Your task to perform on an android device: Open Chrome and go to settings Image 0: 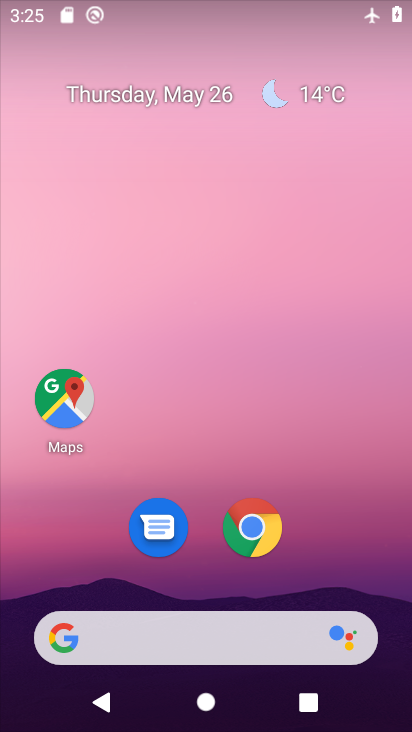
Step 0: click (257, 536)
Your task to perform on an android device: Open Chrome and go to settings Image 1: 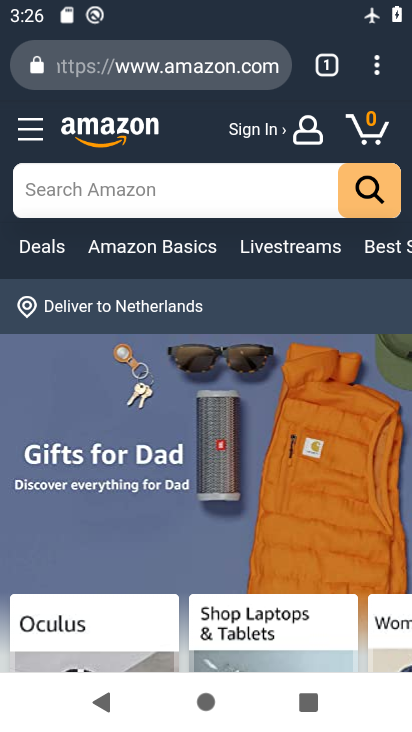
Step 1: click (375, 59)
Your task to perform on an android device: Open Chrome and go to settings Image 2: 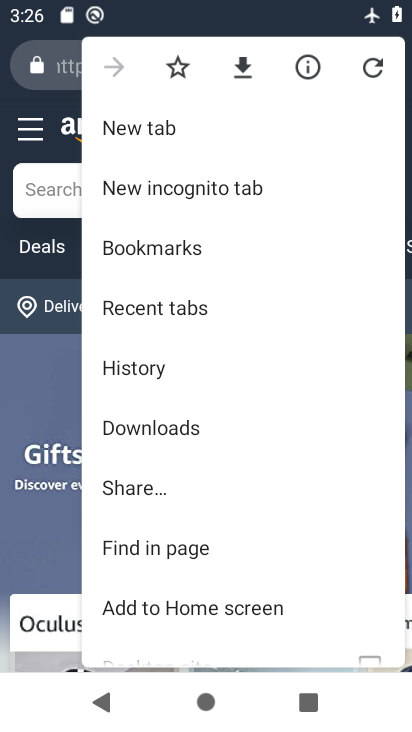
Step 2: drag from (200, 630) to (166, 243)
Your task to perform on an android device: Open Chrome and go to settings Image 3: 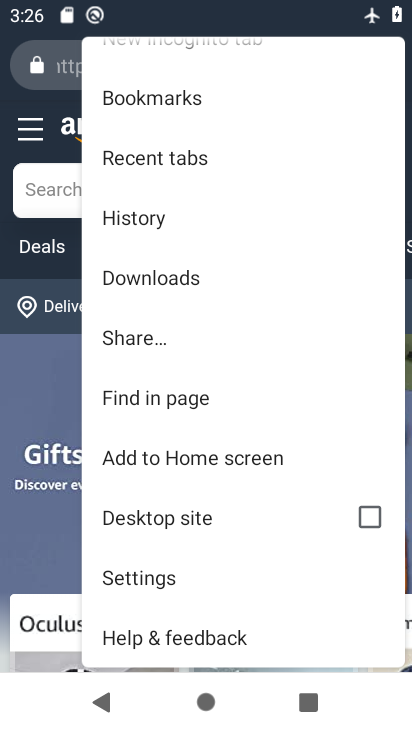
Step 3: click (171, 570)
Your task to perform on an android device: Open Chrome and go to settings Image 4: 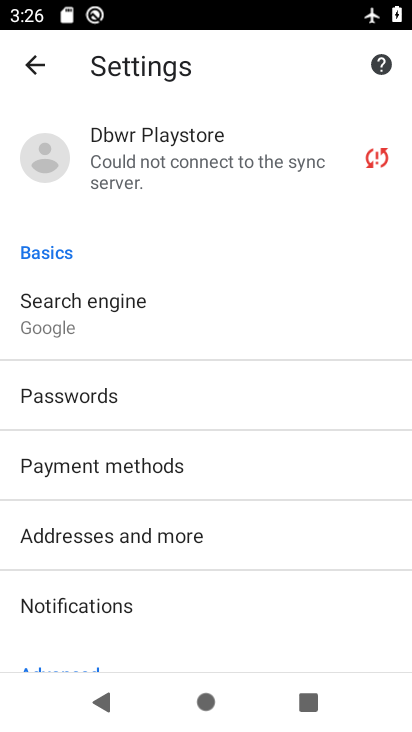
Step 4: task complete